Your task to perform on an android device: uninstall "PUBG MOBILE" Image 0: 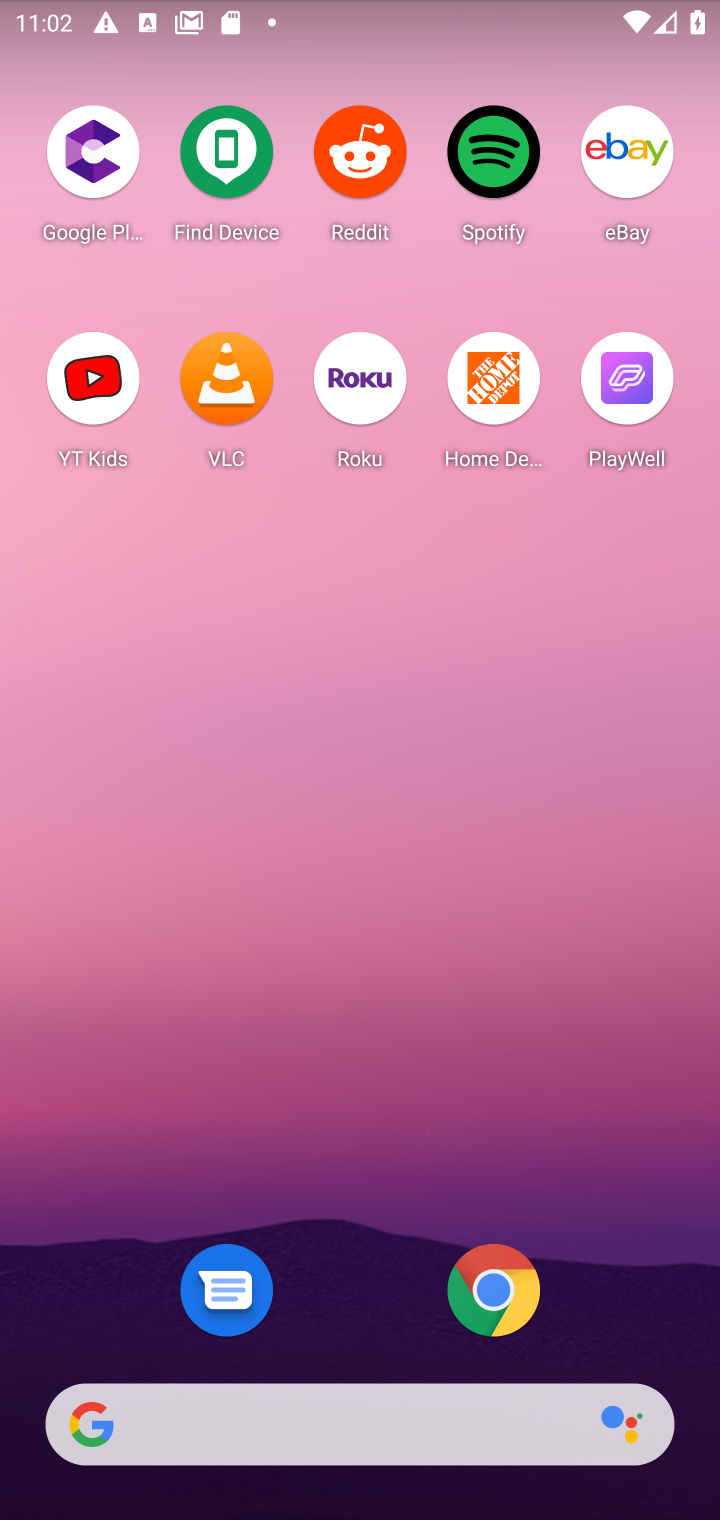
Step 0: drag from (359, 1346) to (359, 4)
Your task to perform on an android device: uninstall "PUBG MOBILE" Image 1: 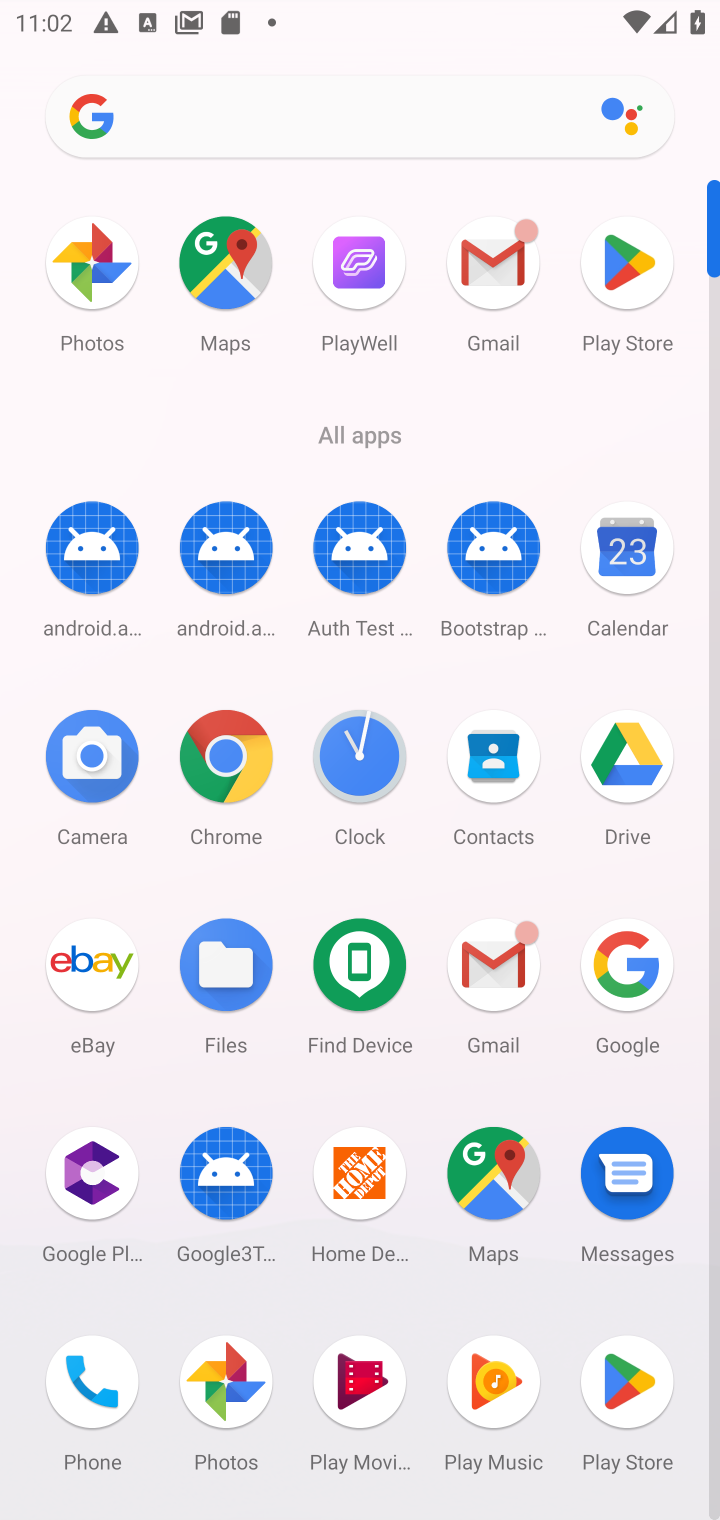
Step 1: click (631, 1376)
Your task to perform on an android device: uninstall "PUBG MOBILE" Image 2: 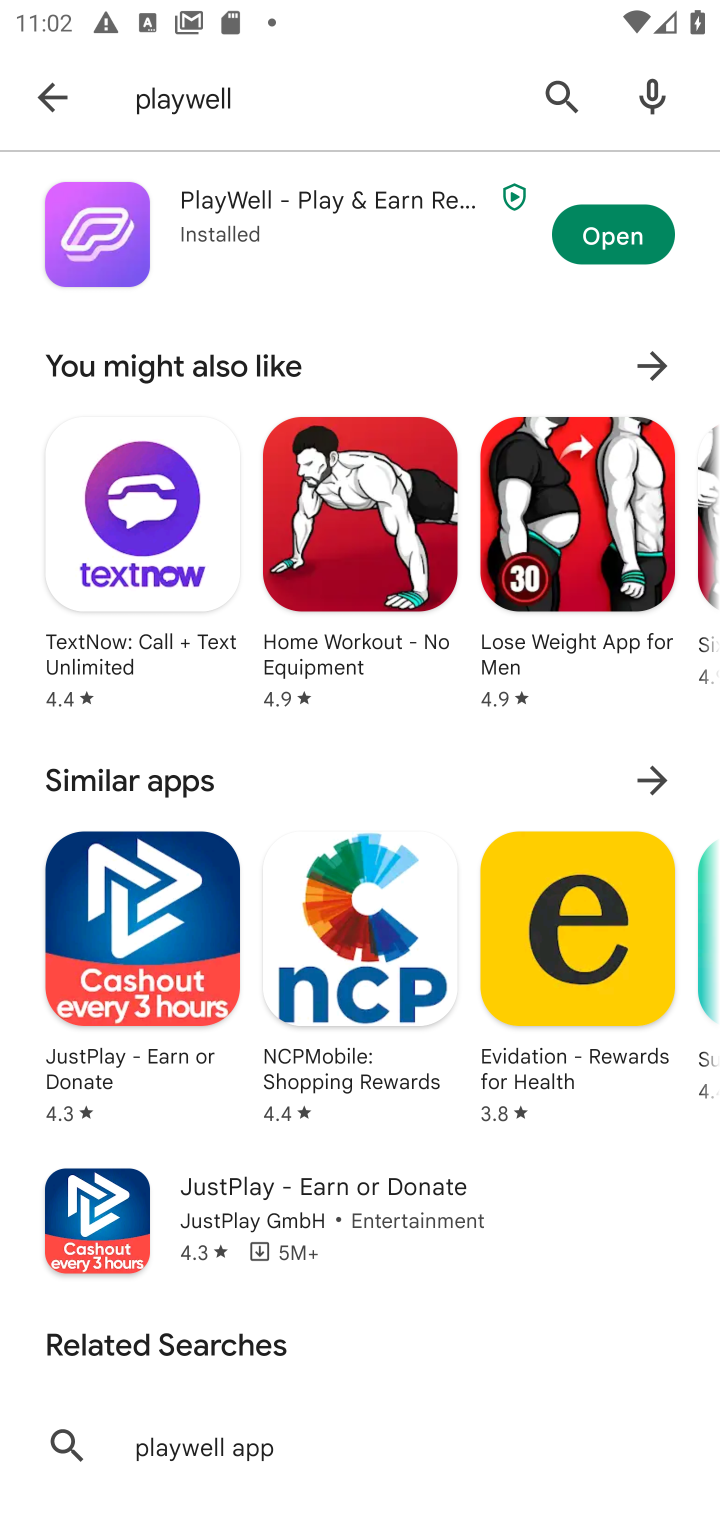
Step 2: click (549, 95)
Your task to perform on an android device: uninstall "PUBG MOBILE" Image 3: 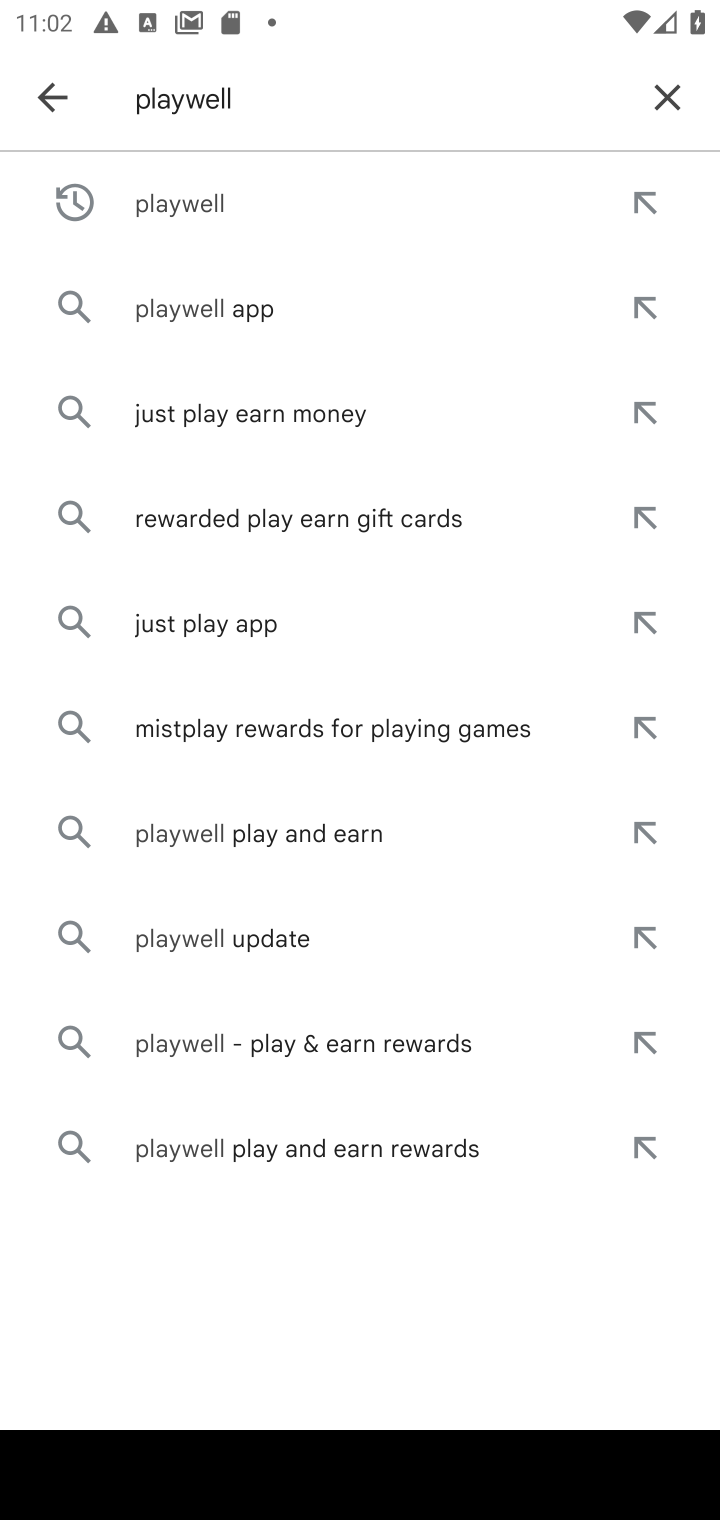
Step 3: click (654, 96)
Your task to perform on an android device: uninstall "PUBG MOBILE" Image 4: 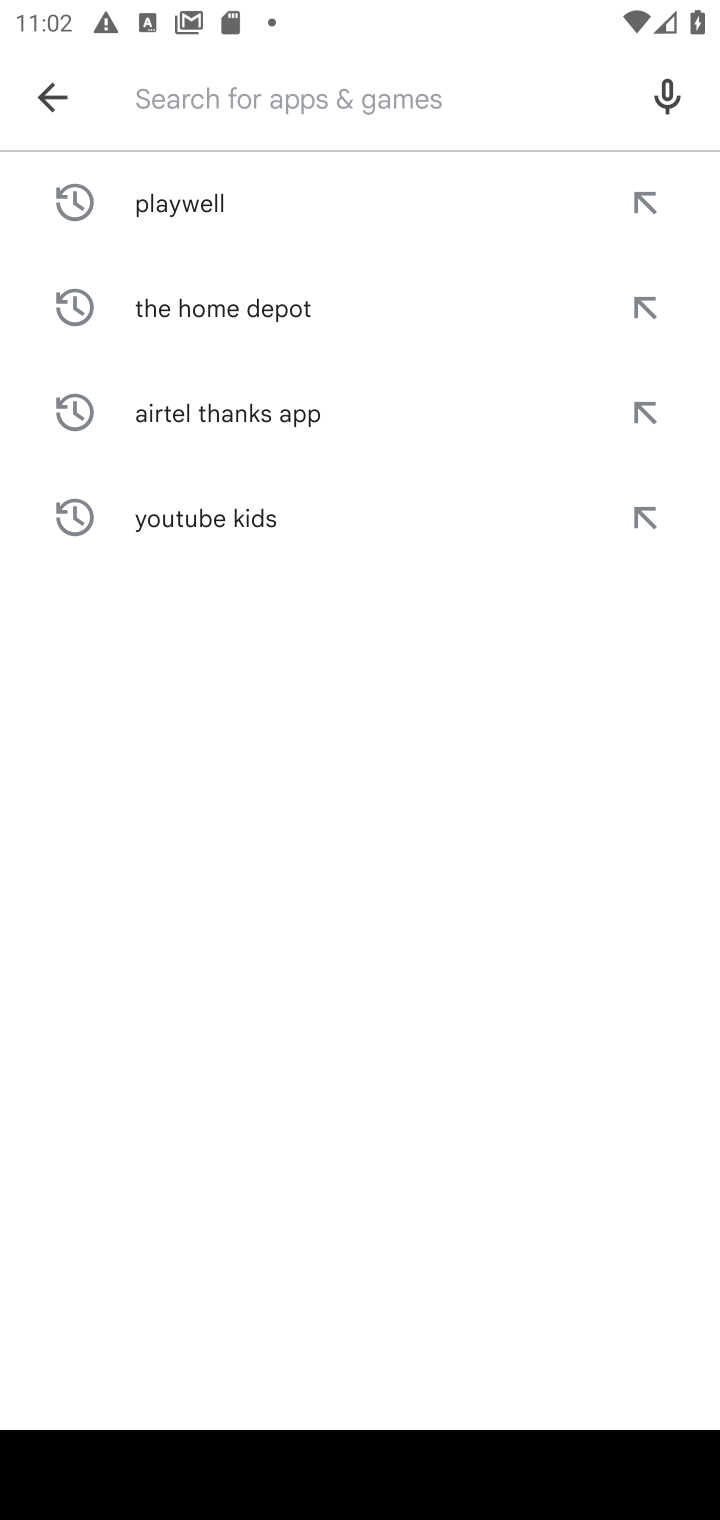
Step 4: type "PUBG MOBILE"
Your task to perform on an android device: uninstall "PUBG MOBILE" Image 5: 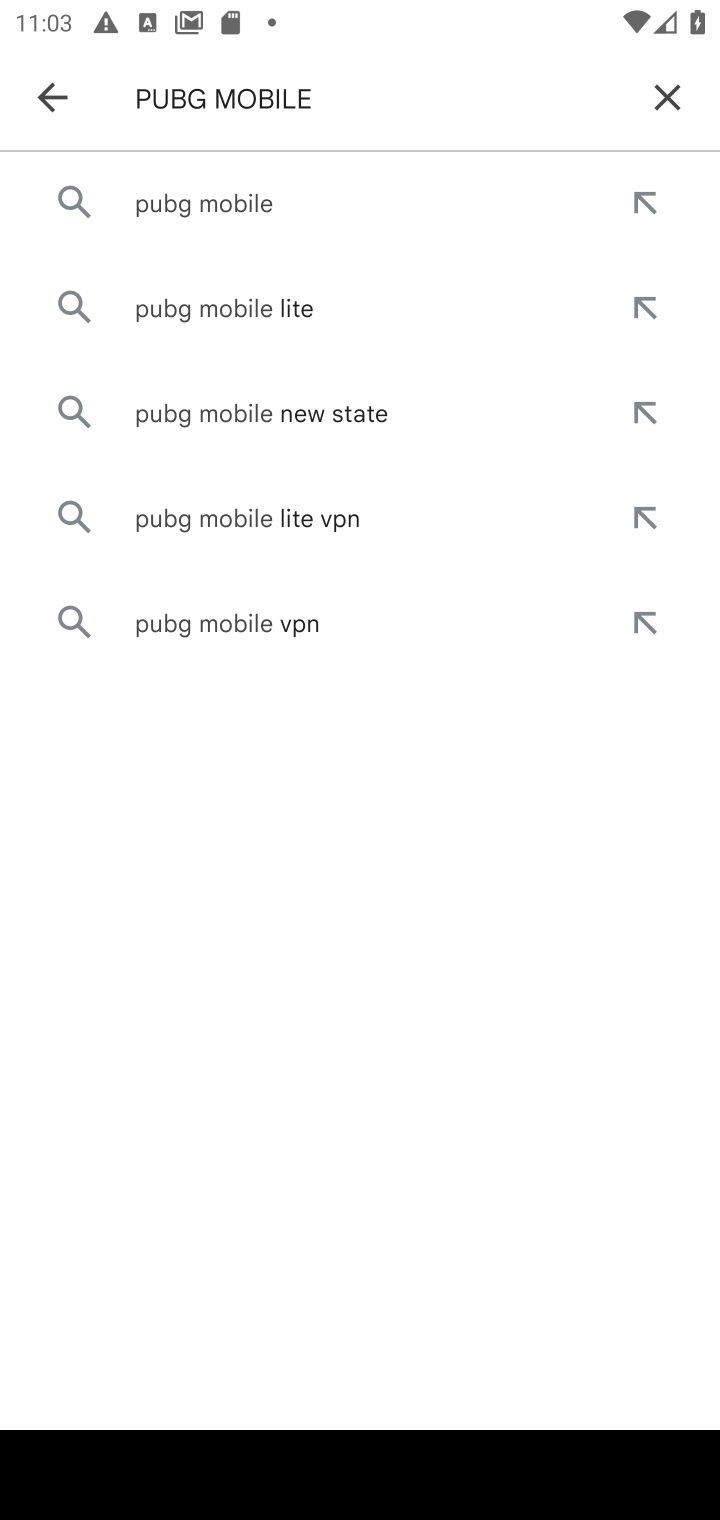
Step 5: click (233, 203)
Your task to perform on an android device: uninstall "PUBG MOBILE" Image 6: 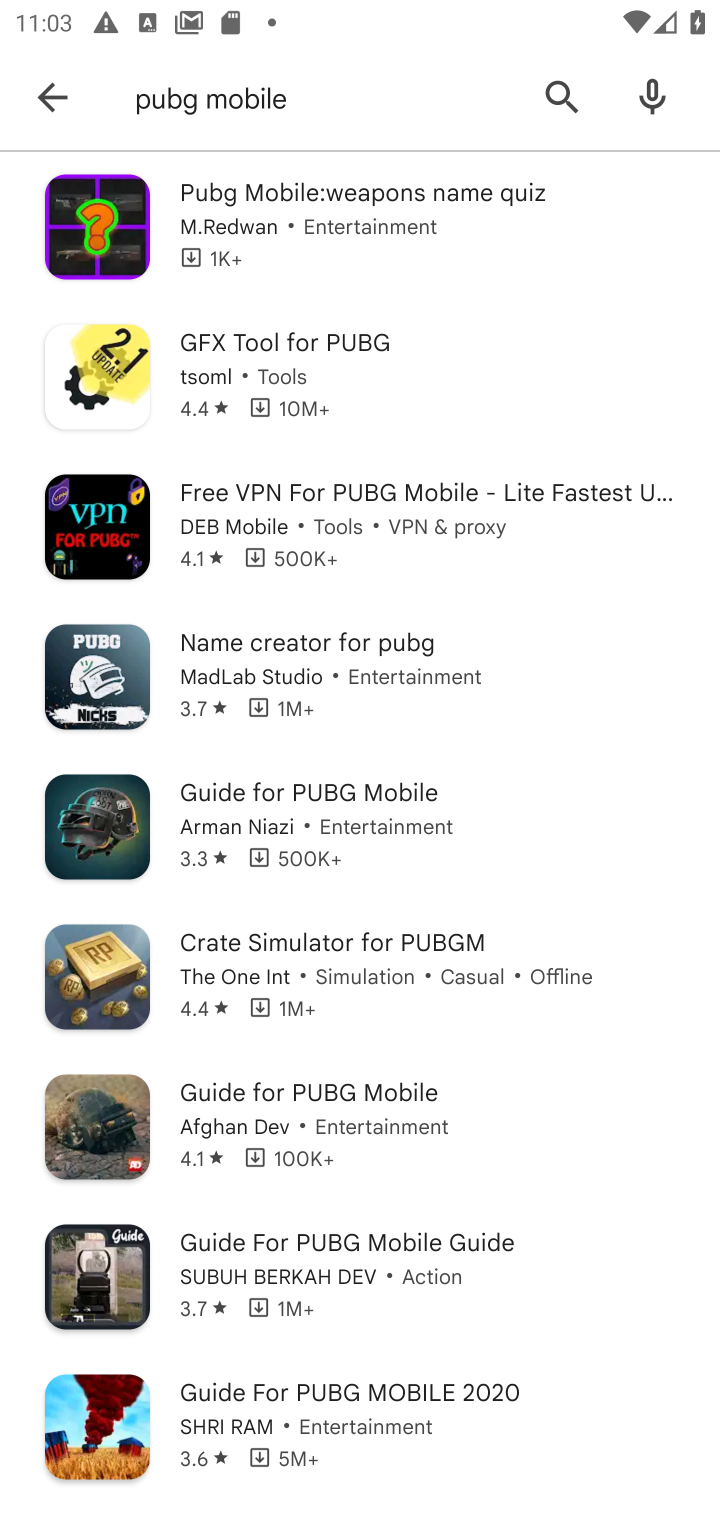
Step 6: click (225, 201)
Your task to perform on an android device: uninstall "PUBG MOBILE" Image 7: 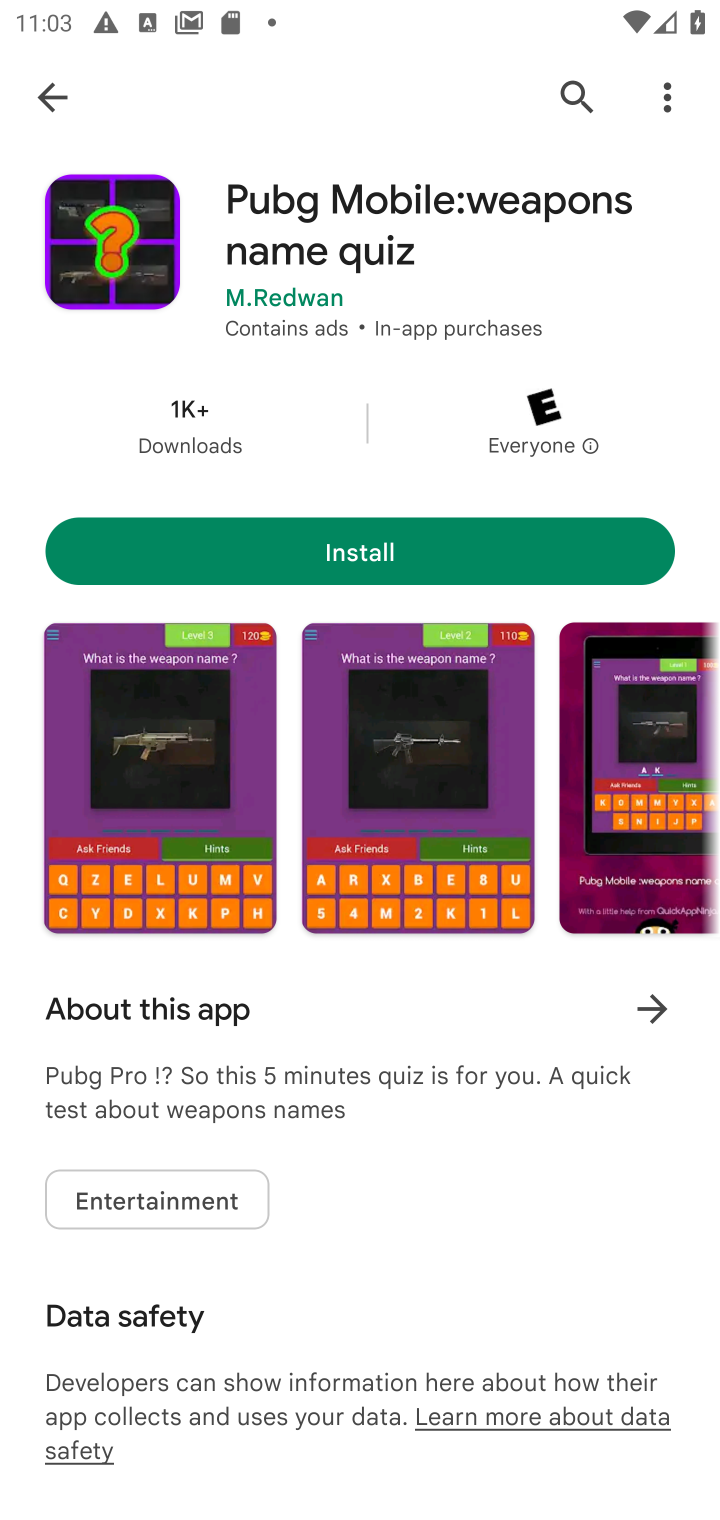
Step 7: task complete